Your task to perform on an android device: Show me the alarms in the clock app Image 0: 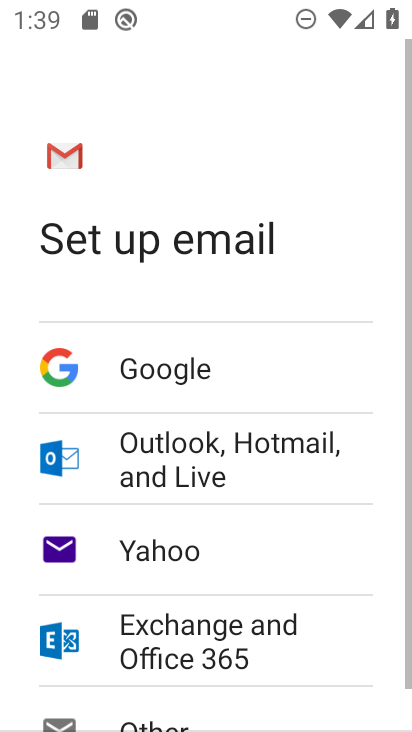
Step 0: press home button
Your task to perform on an android device: Show me the alarms in the clock app Image 1: 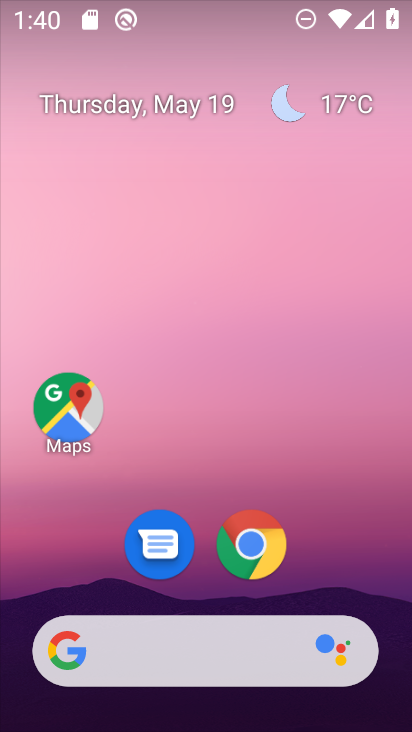
Step 1: drag from (226, 707) to (258, 105)
Your task to perform on an android device: Show me the alarms in the clock app Image 2: 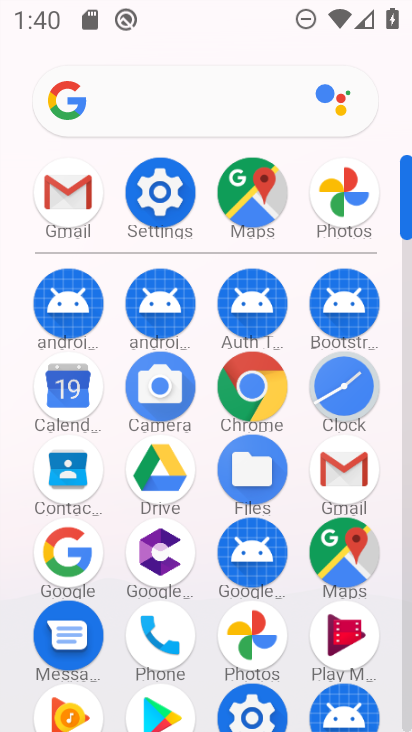
Step 2: click (342, 384)
Your task to perform on an android device: Show me the alarms in the clock app Image 3: 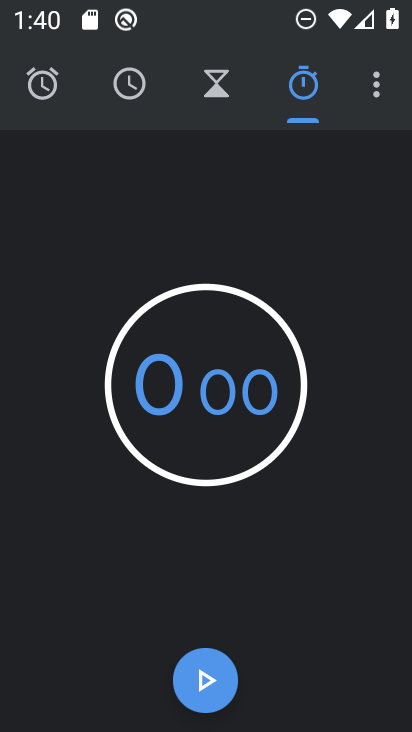
Step 3: click (50, 77)
Your task to perform on an android device: Show me the alarms in the clock app Image 4: 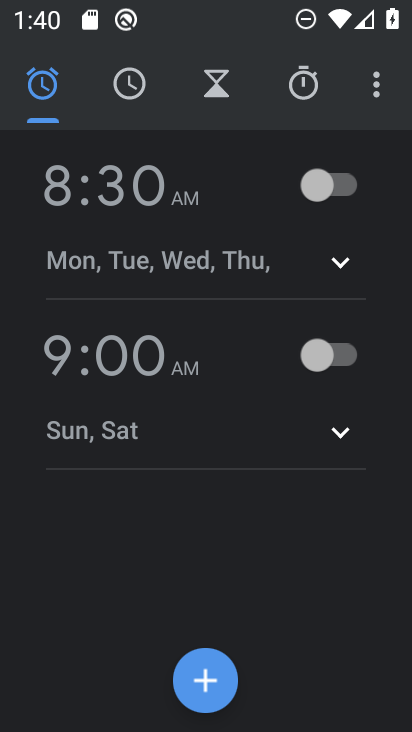
Step 4: task complete